Your task to perform on an android device: open app "Upside-Cash back on gas & food" (install if not already installed) Image 0: 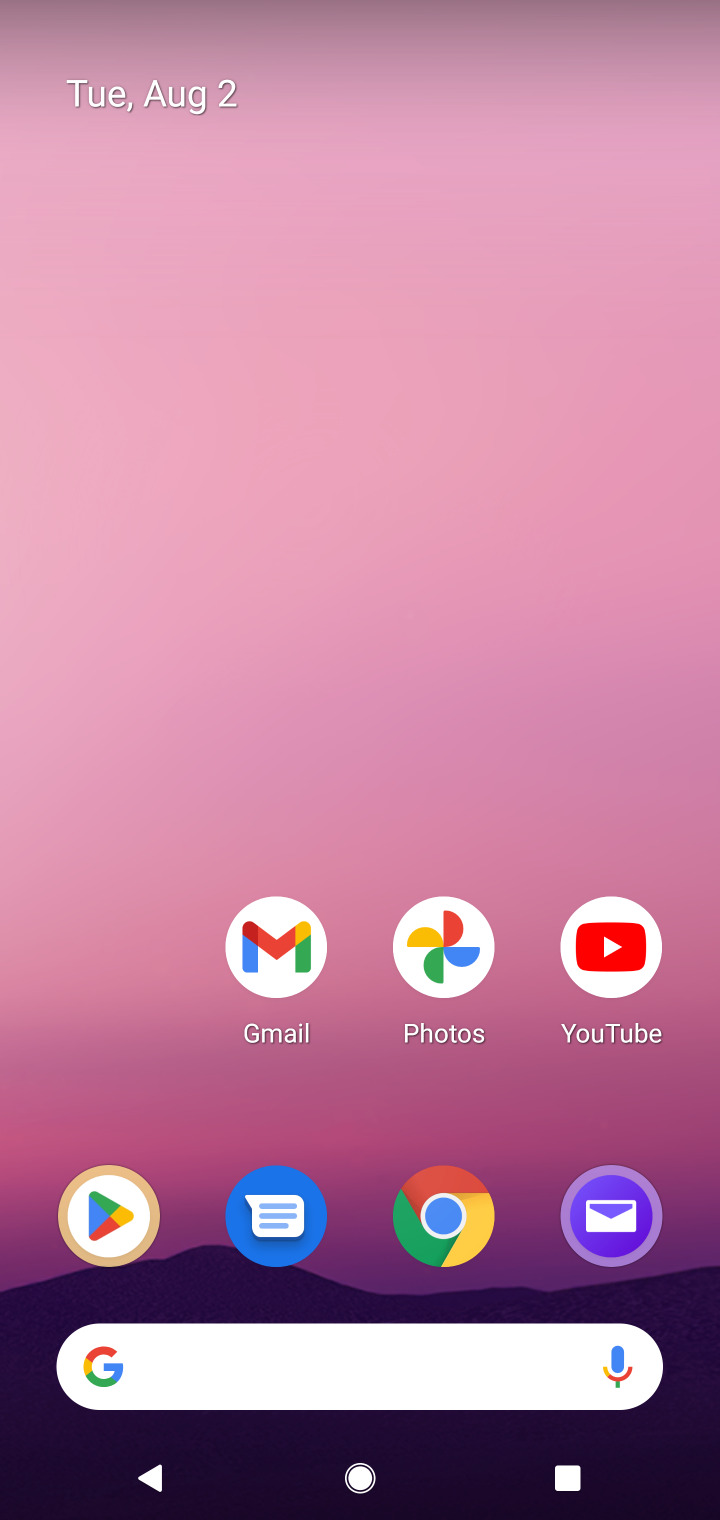
Step 0: click (97, 1216)
Your task to perform on an android device: open app "Upside-Cash back on gas & food" (install if not already installed) Image 1: 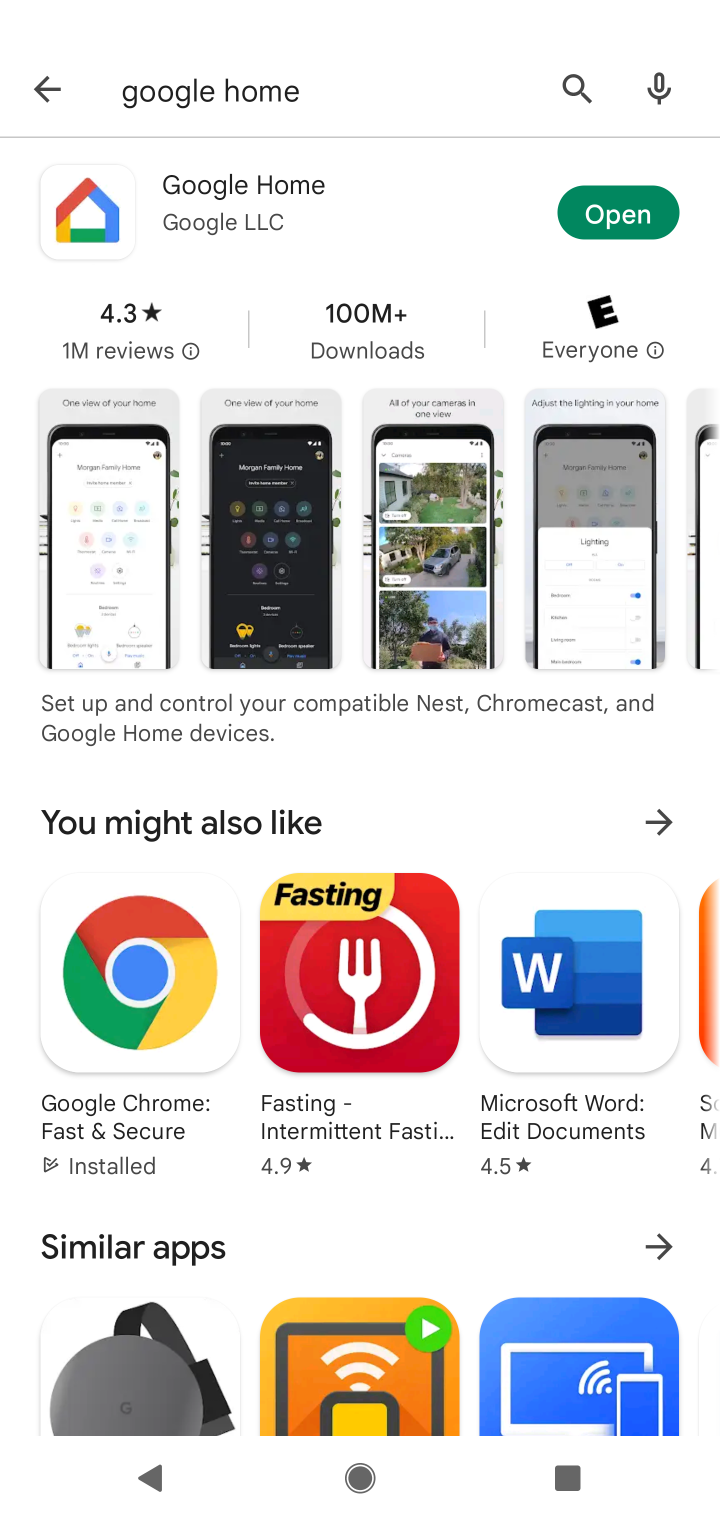
Step 1: click (573, 71)
Your task to perform on an android device: open app "Upside-Cash back on gas & food" (install if not already installed) Image 2: 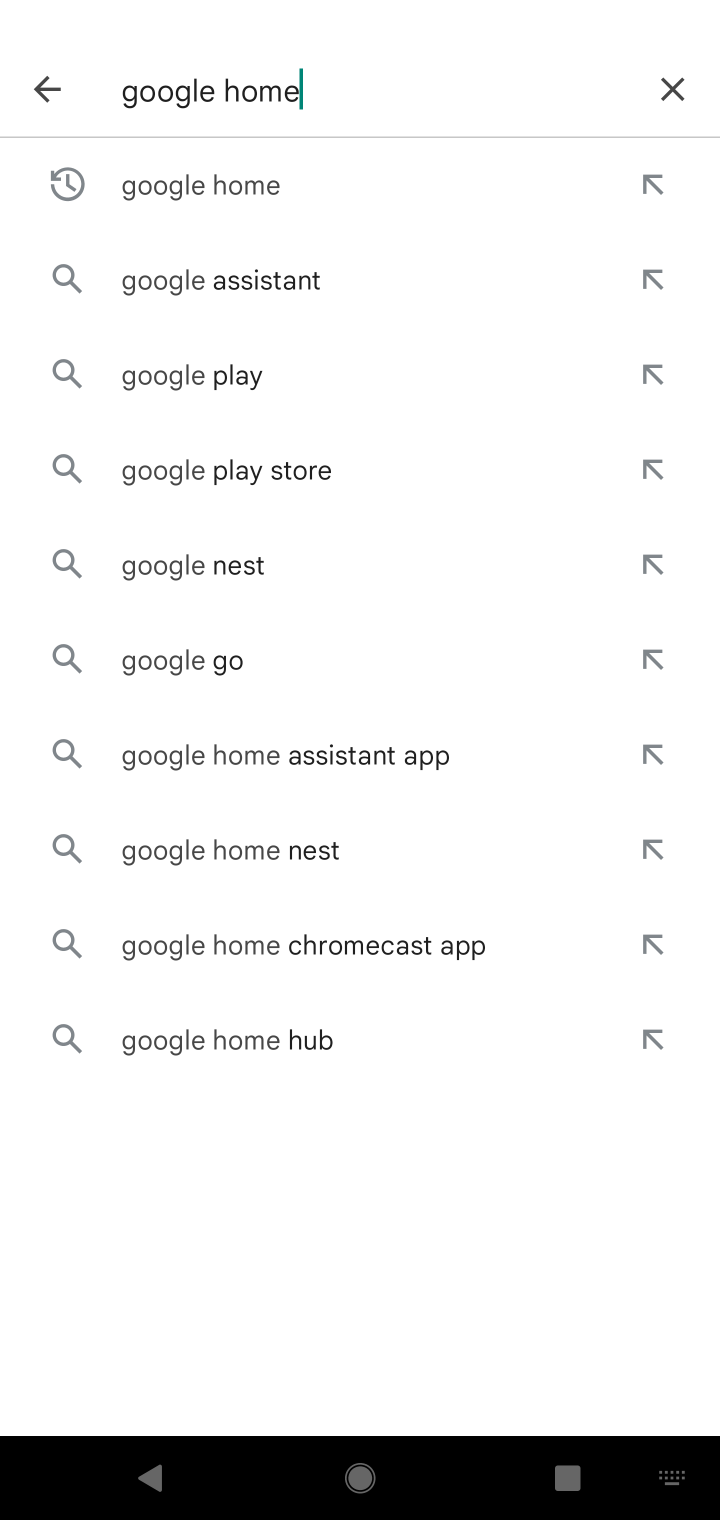
Step 2: click (661, 75)
Your task to perform on an android device: open app "Upside-Cash back on gas & food" (install if not already installed) Image 3: 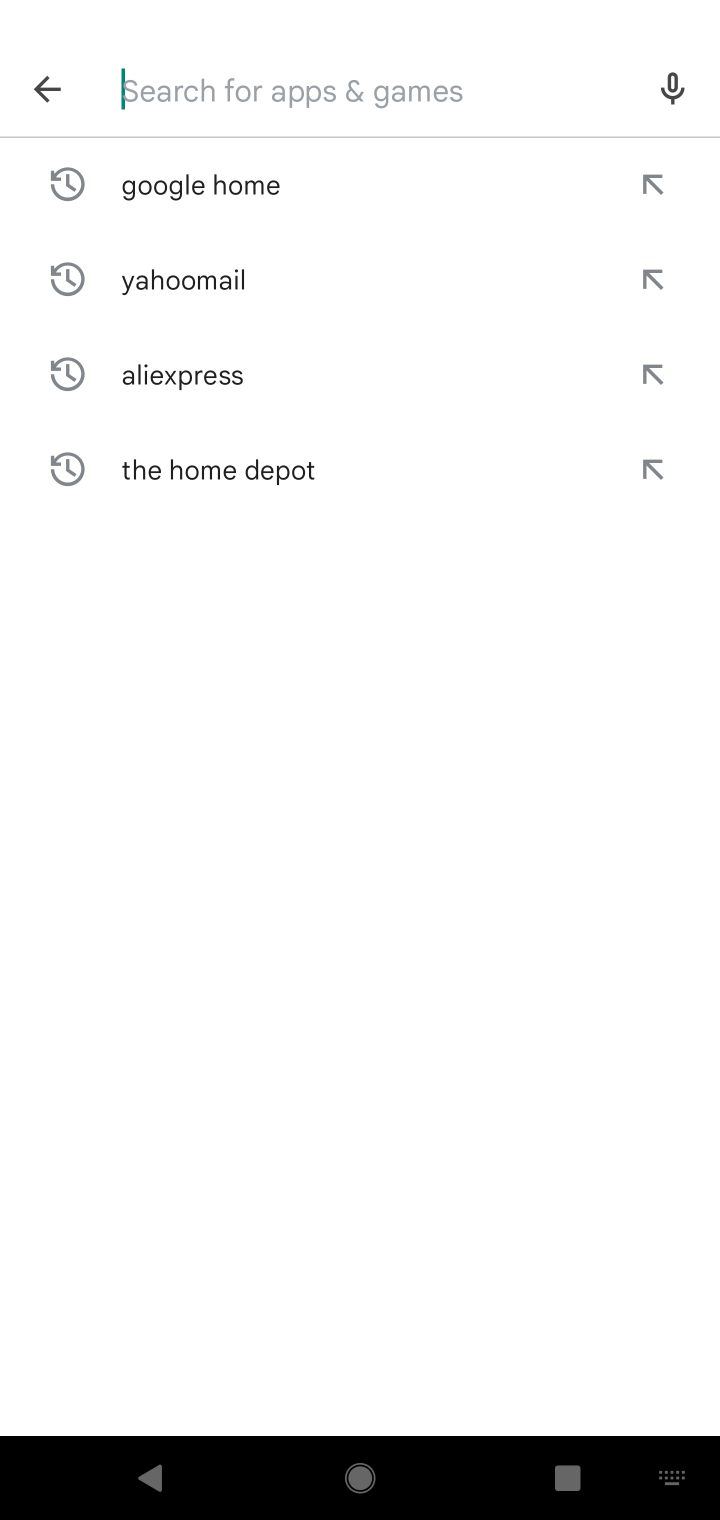
Step 3: type "upside'"
Your task to perform on an android device: open app "Upside-Cash back on gas & food" (install if not already installed) Image 4: 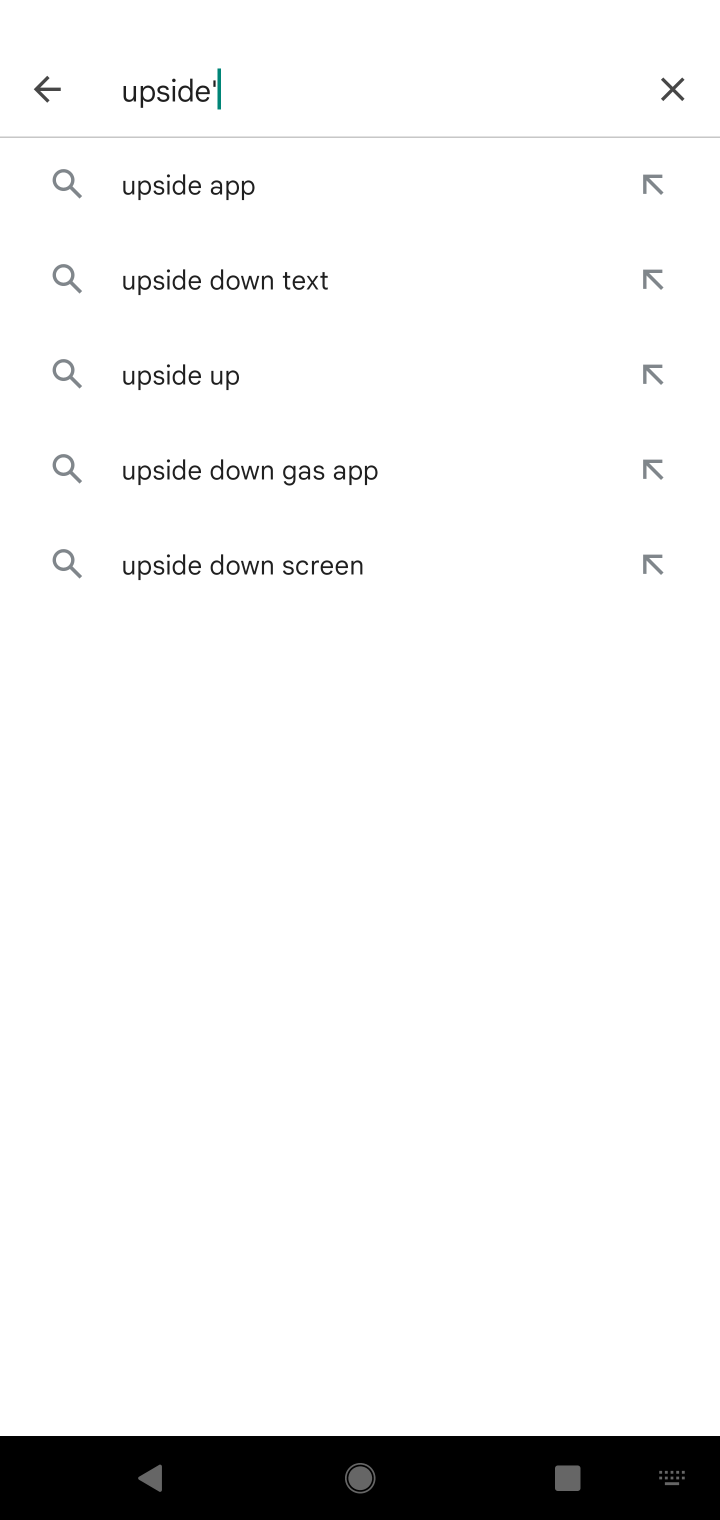
Step 4: click (240, 189)
Your task to perform on an android device: open app "Upside-Cash back on gas & food" (install if not already installed) Image 5: 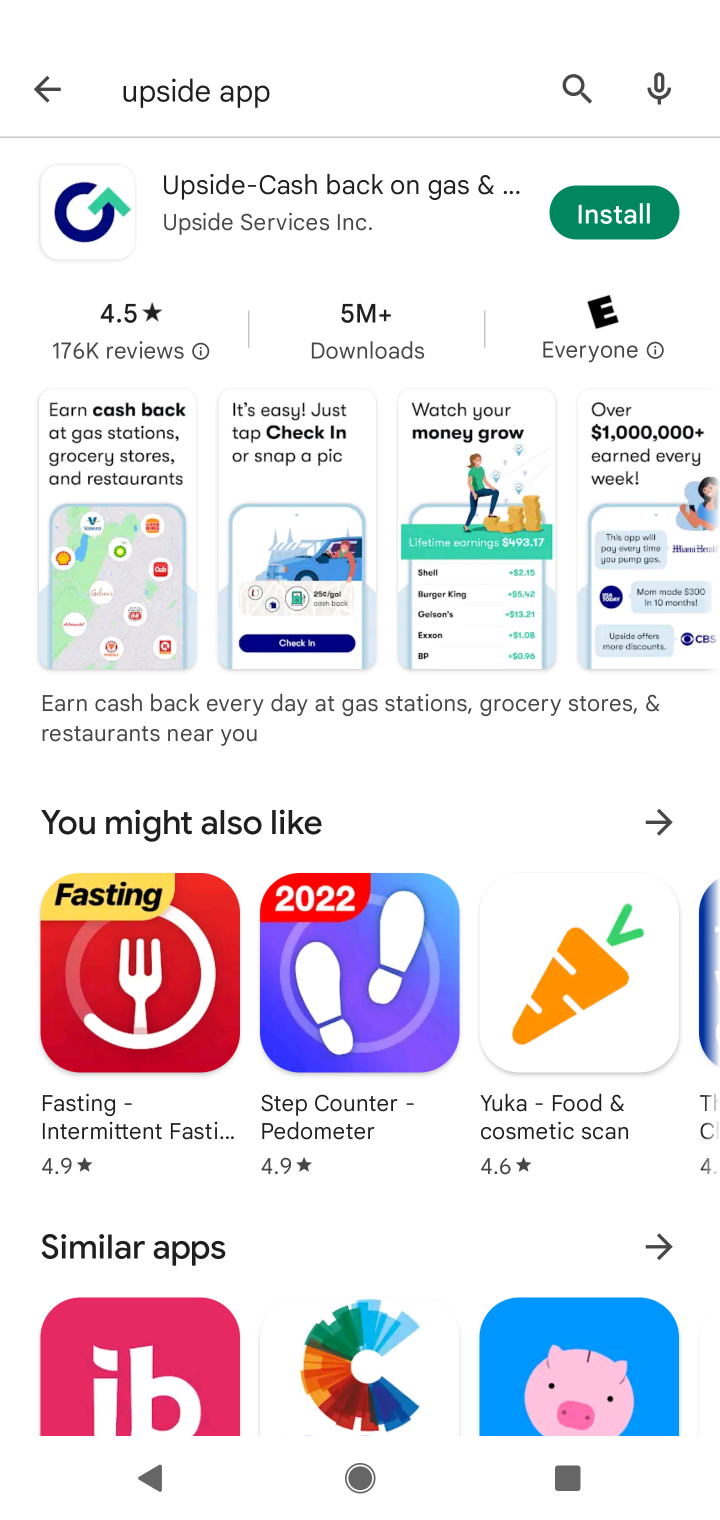
Step 5: click (589, 202)
Your task to perform on an android device: open app "Upside-Cash back on gas & food" (install if not already installed) Image 6: 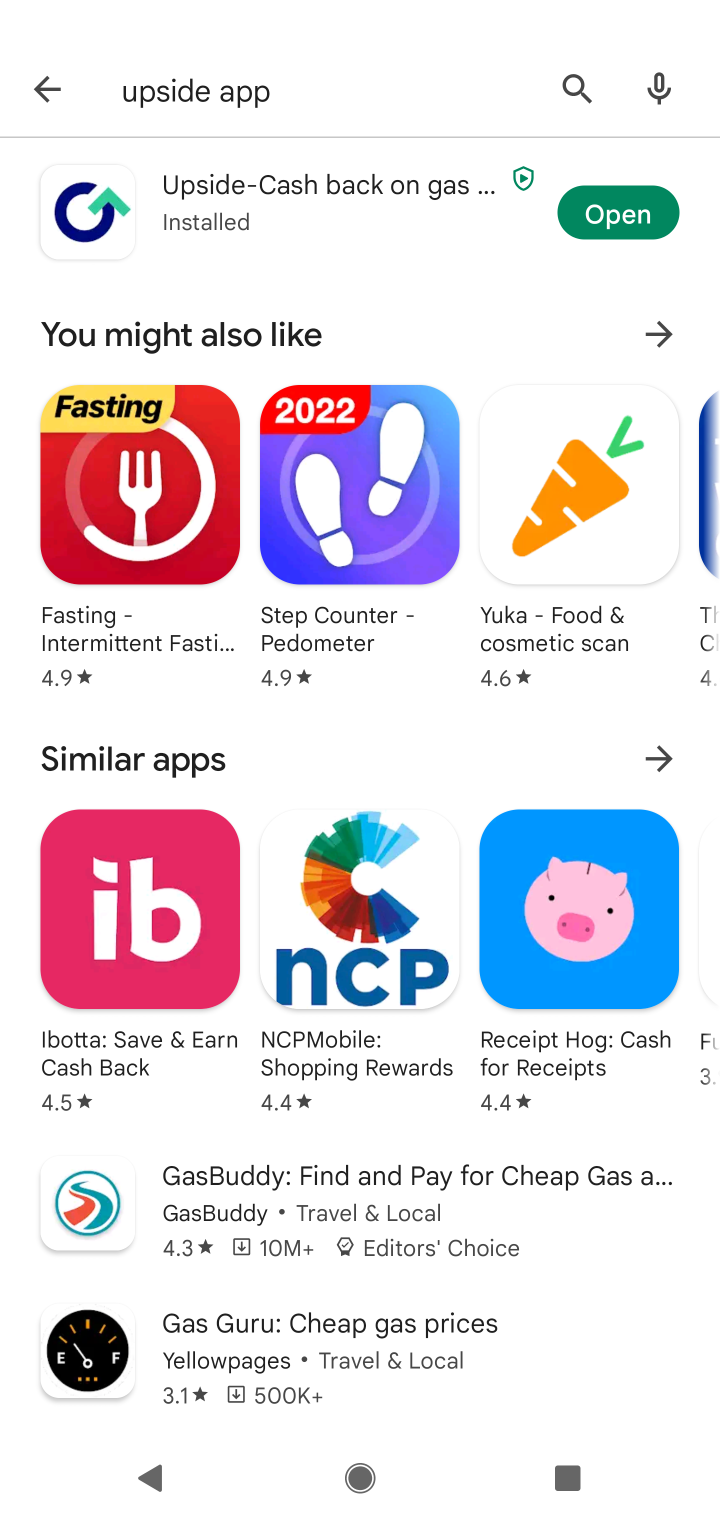
Step 6: task complete